Your task to perform on an android device: uninstall "Google News" Image 0: 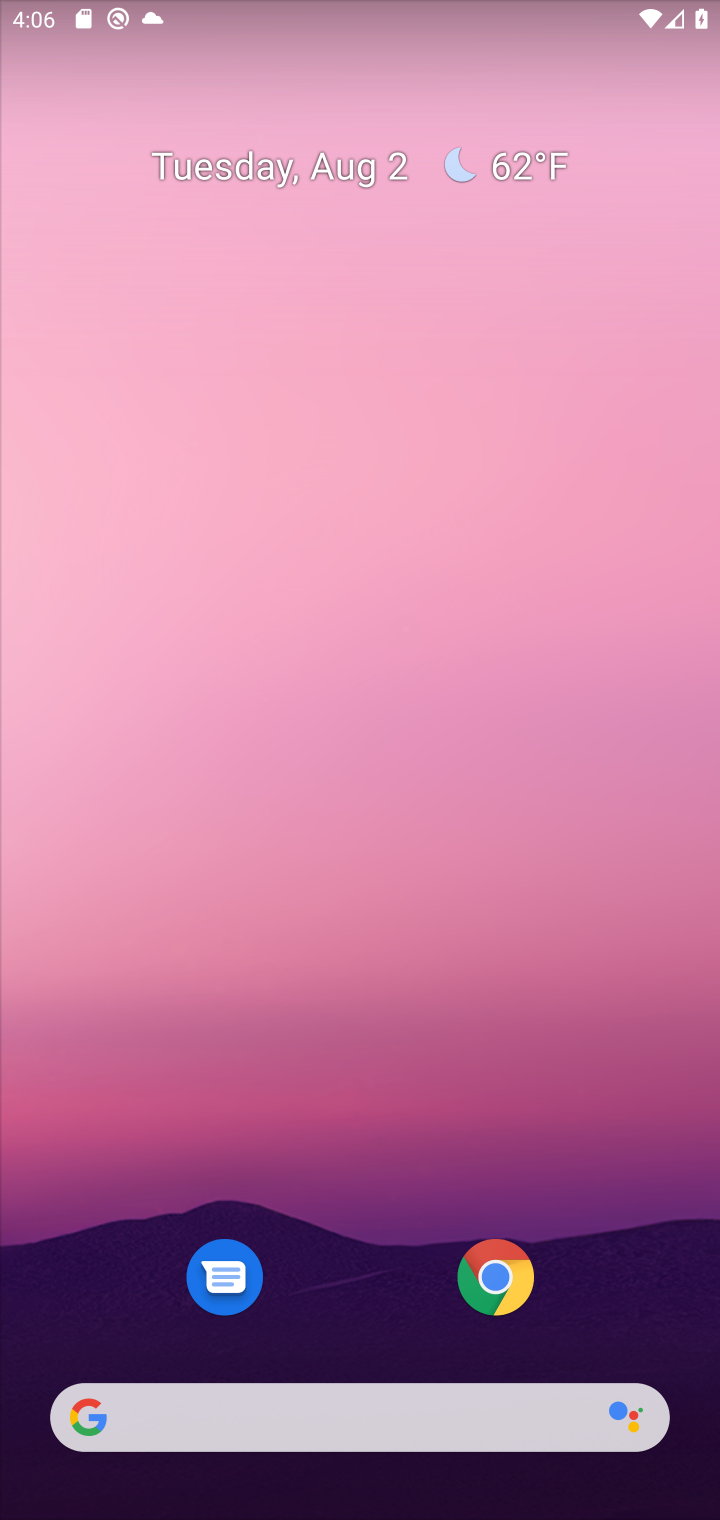
Step 0: drag from (585, 1073) to (521, 74)
Your task to perform on an android device: uninstall "Google News" Image 1: 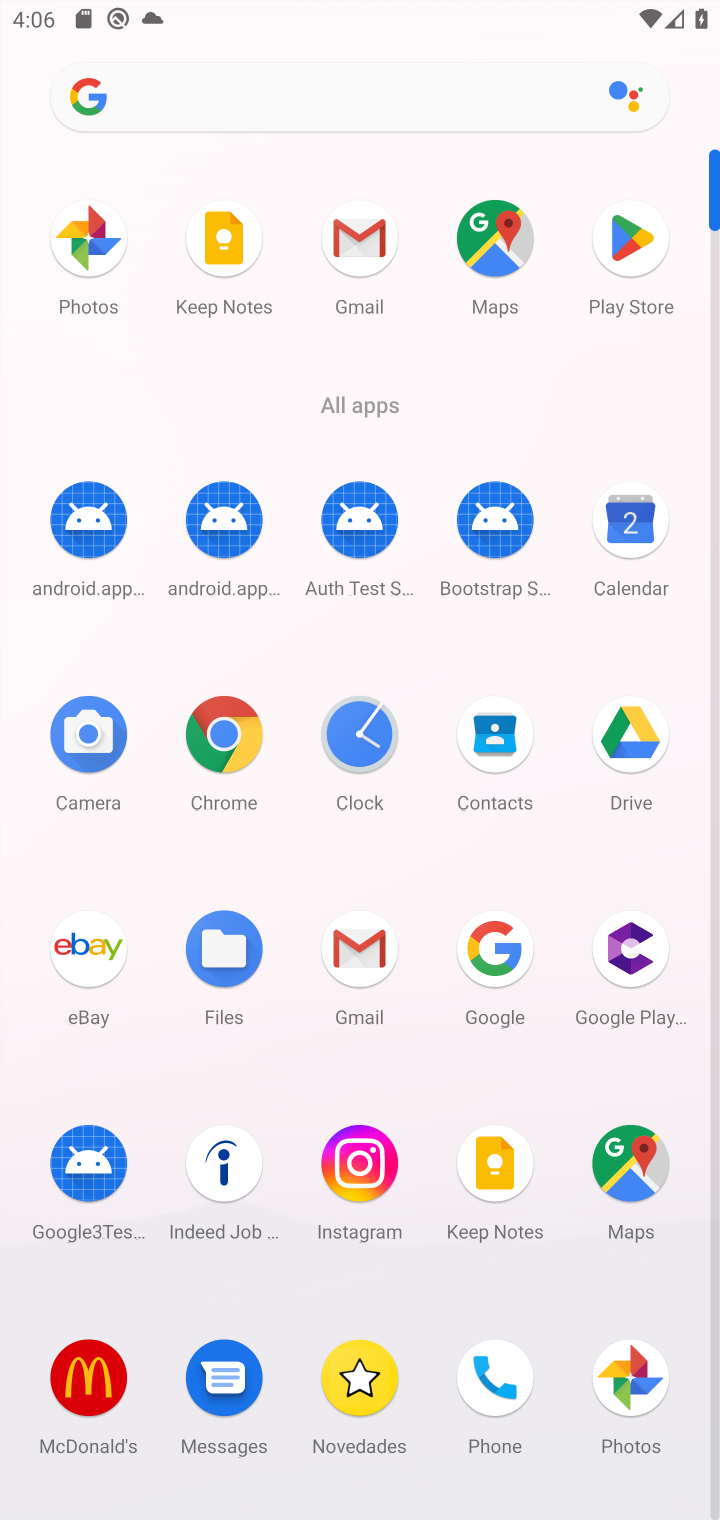
Step 1: drag from (560, 1299) to (555, 739)
Your task to perform on an android device: uninstall "Google News" Image 2: 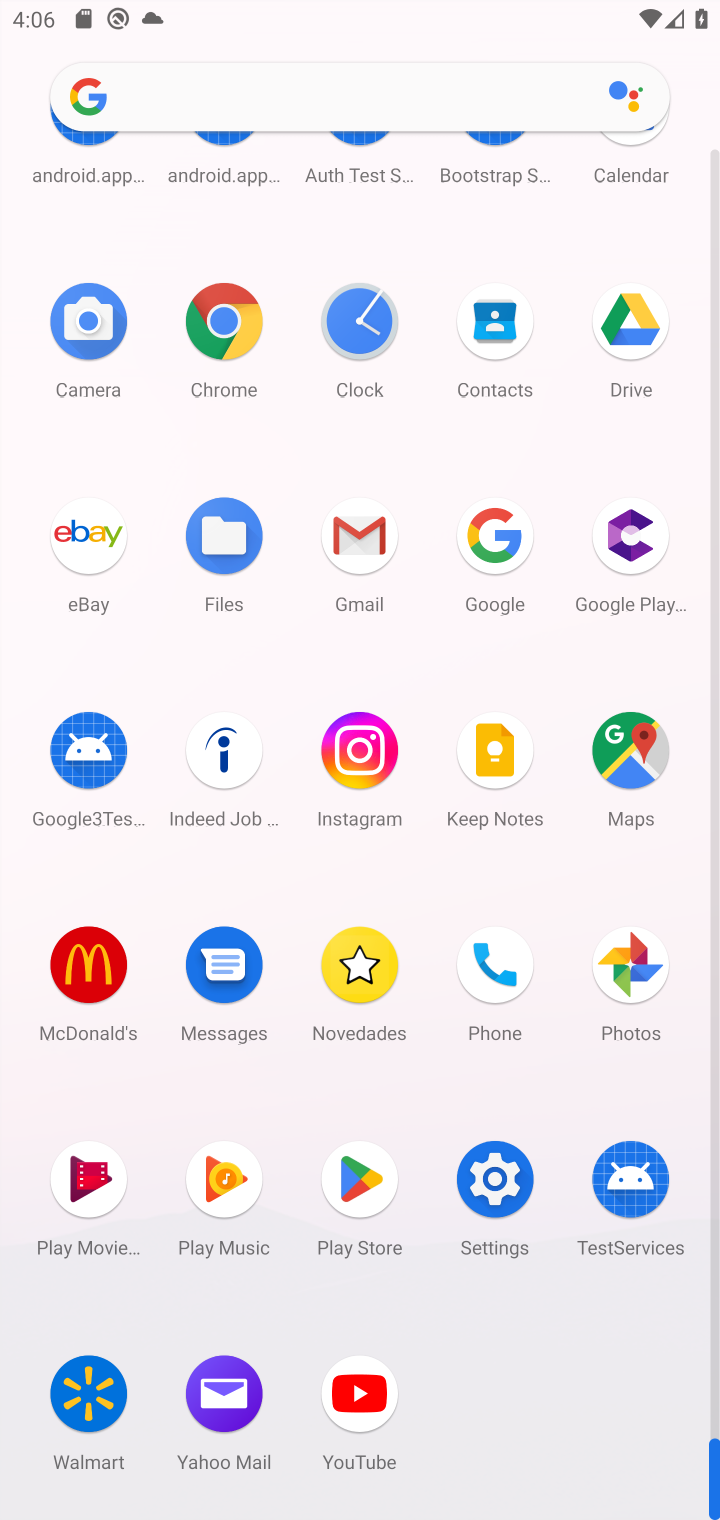
Step 2: click (361, 1176)
Your task to perform on an android device: uninstall "Google News" Image 3: 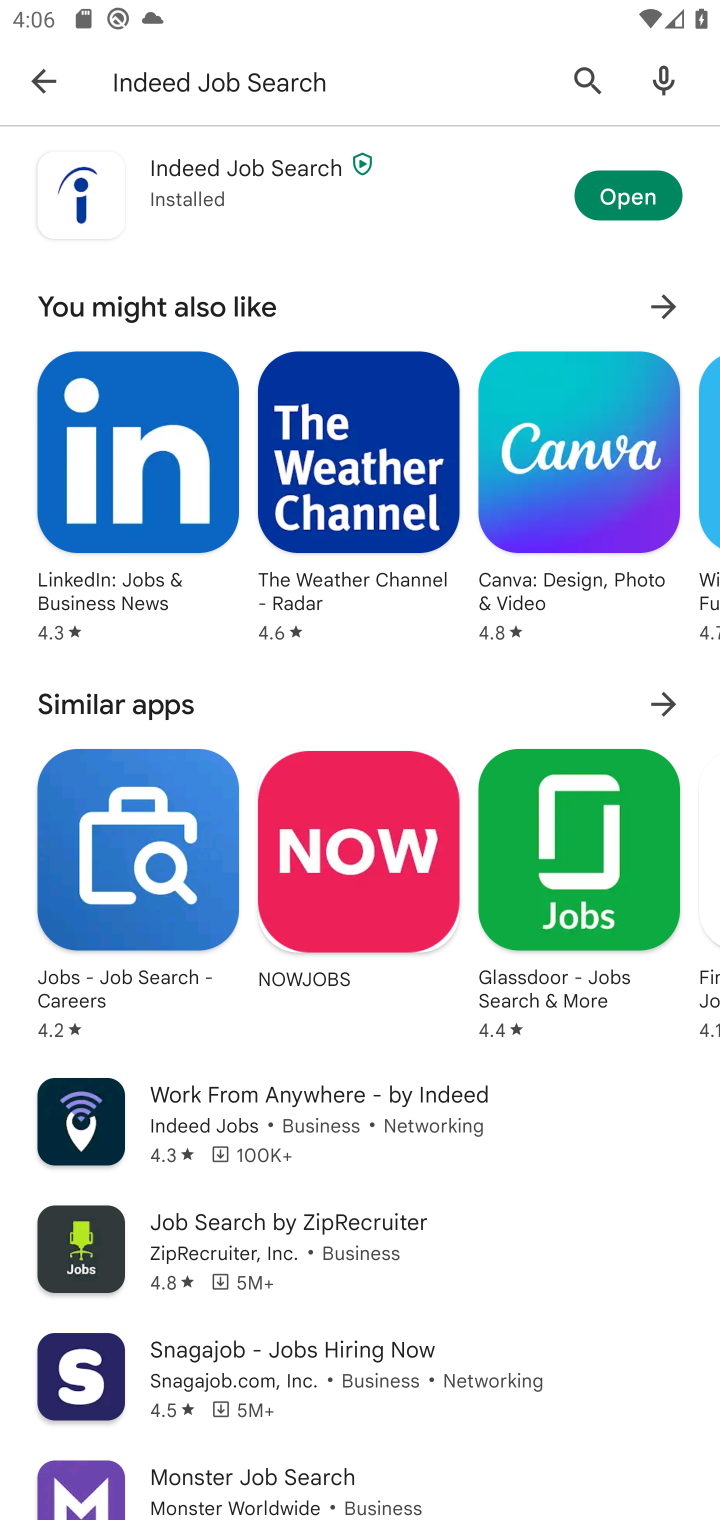
Step 3: click (351, 77)
Your task to perform on an android device: uninstall "Google News" Image 4: 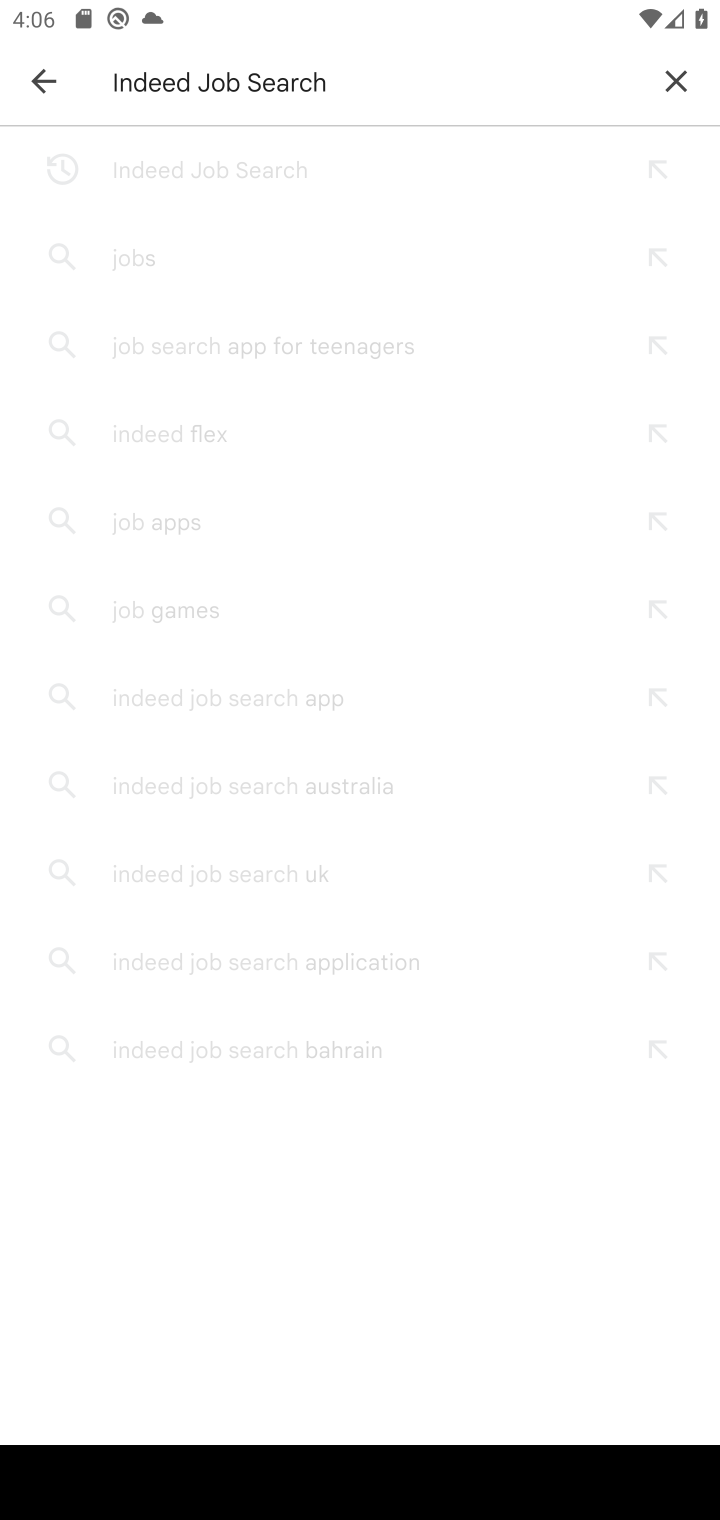
Step 4: click (679, 70)
Your task to perform on an android device: uninstall "Google News" Image 5: 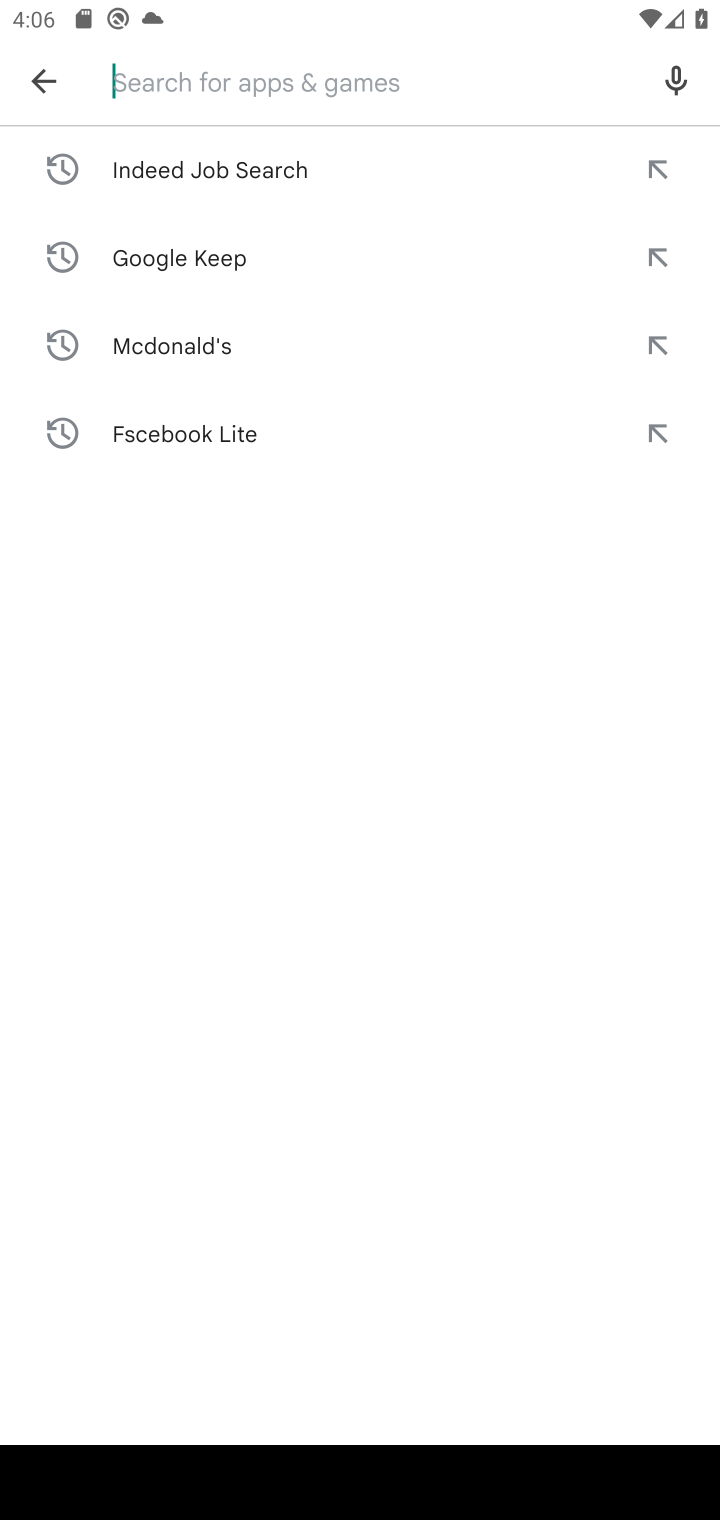
Step 5: type "Google News"
Your task to perform on an android device: uninstall "Google News" Image 6: 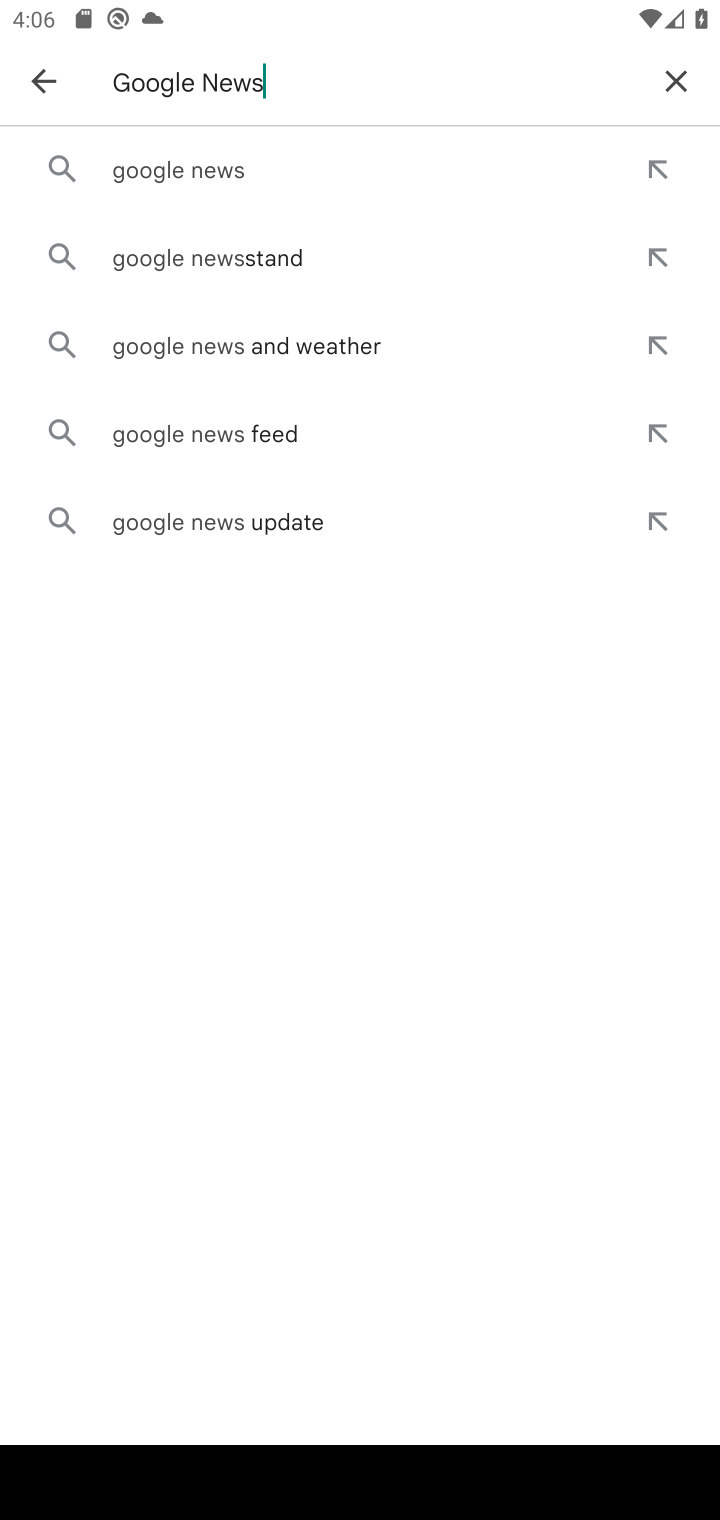
Step 6: press enter
Your task to perform on an android device: uninstall "Google News" Image 7: 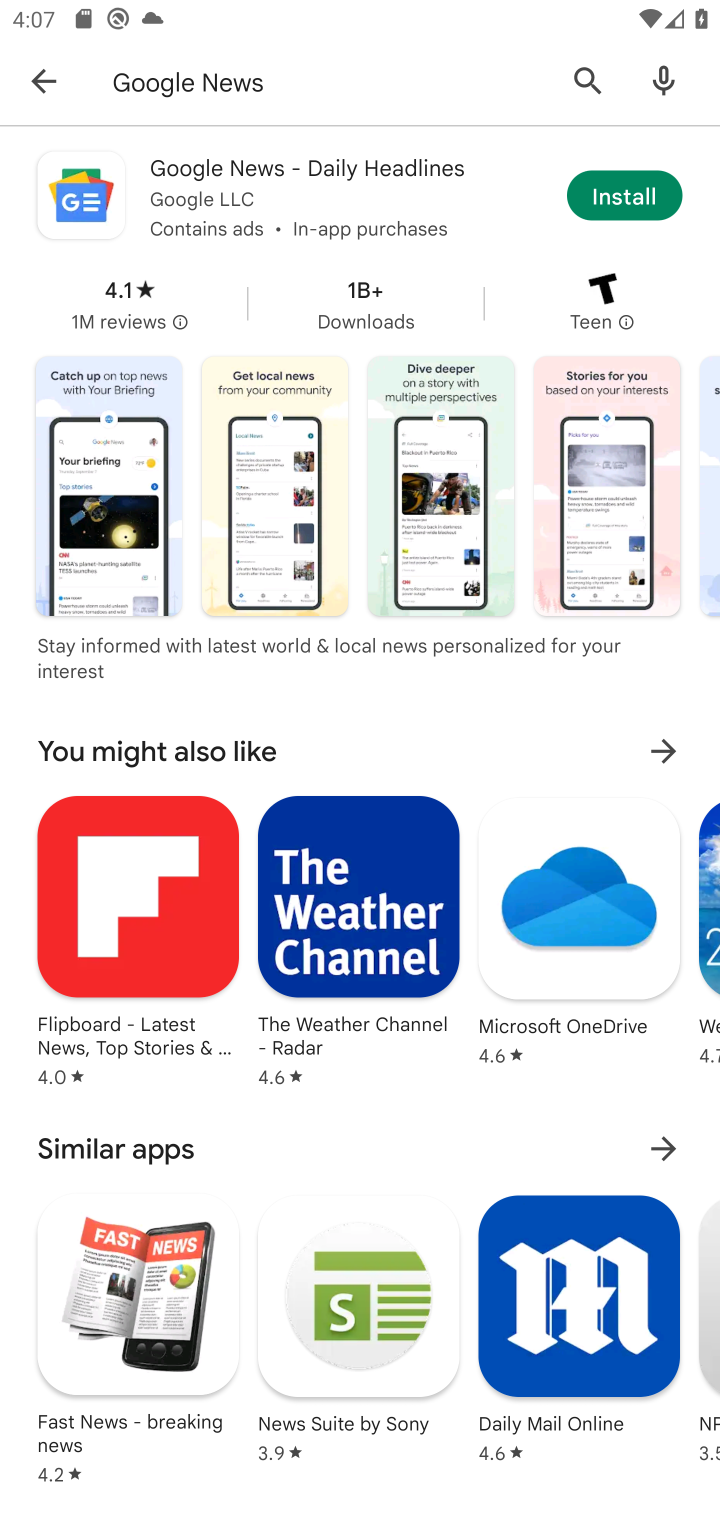
Step 7: task complete